Your task to perform on an android device: see tabs open on other devices in the chrome app Image 0: 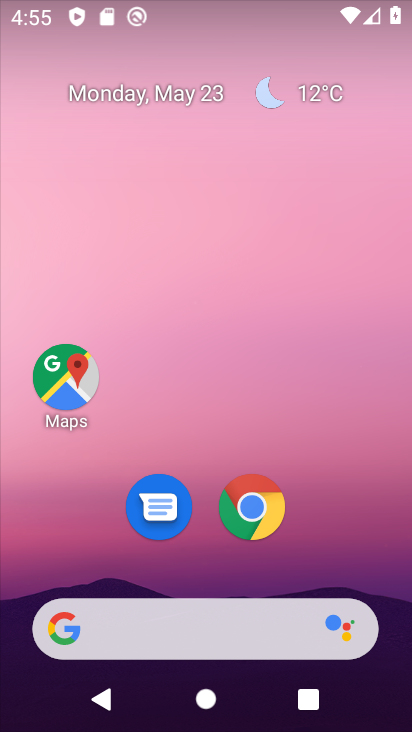
Step 0: click (254, 510)
Your task to perform on an android device: see tabs open on other devices in the chrome app Image 1: 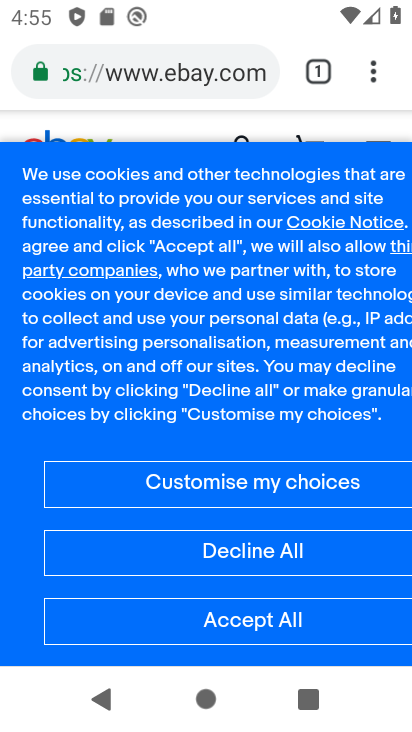
Step 1: click (324, 80)
Your task to perform on an android device: see tabs open on other devices in the chrome app Image 2: 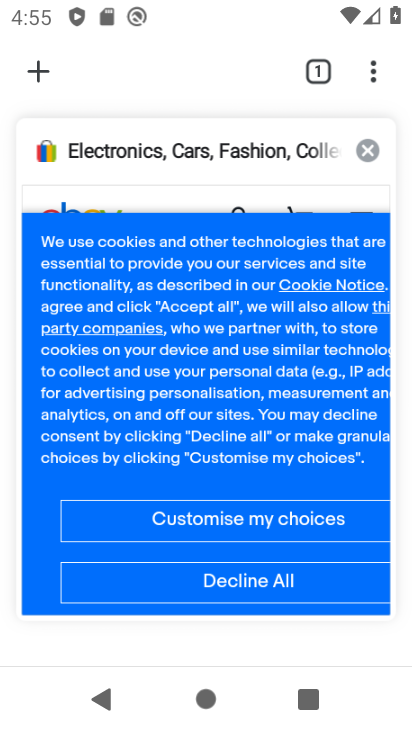
Step 2: task complete